Your task to perform on an android device: Open privacy settings Image 0: 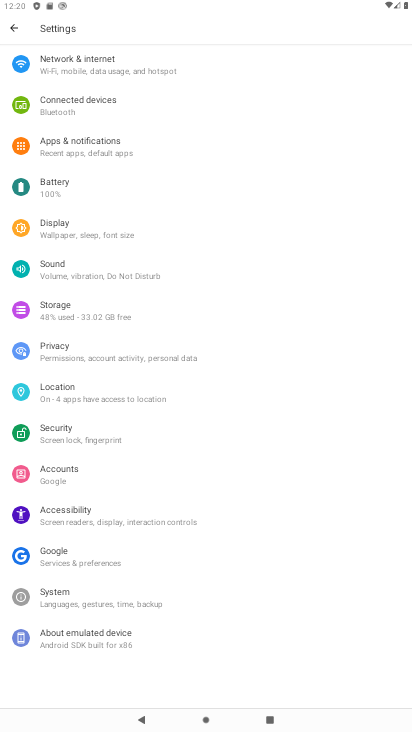
Step 0: press home button
Your task to perform on an android device: Open privacy settings Image 1: 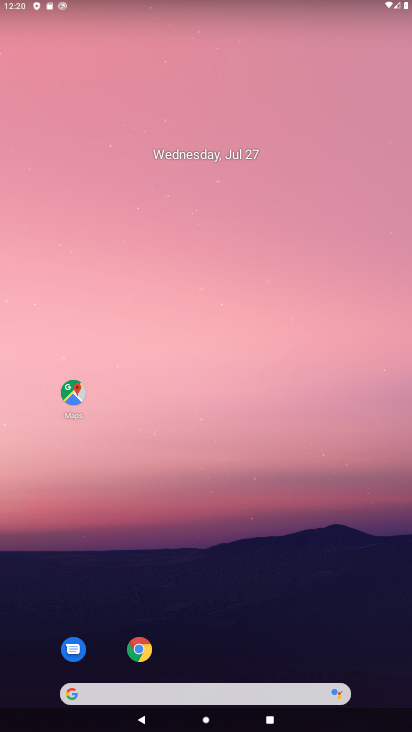
Step 1: drag from (204, 606) to (190, 191)
Your task to perform on an android device: Open privacy settings Image 2: 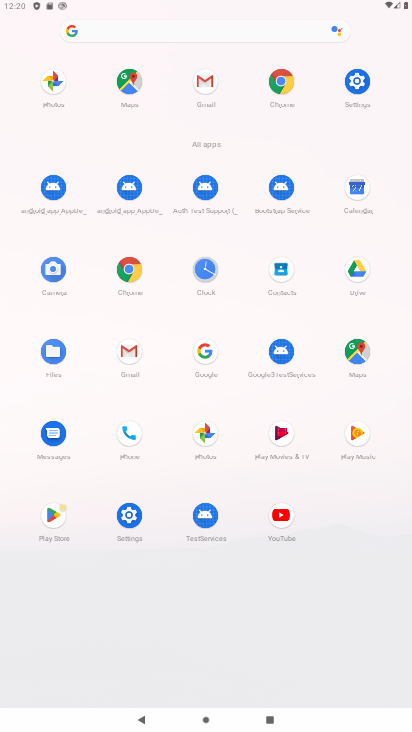
Step 2: click (356, 95)
Your task to perform on an android device: Open privacy settings Image 3: 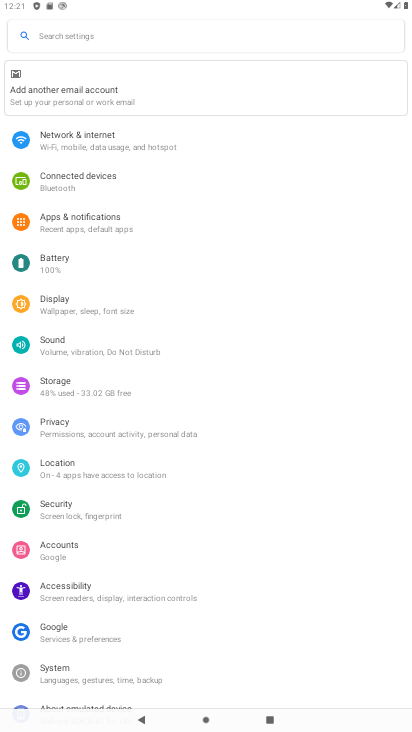
Step 3: drag from (106, 618) to (101, 392)
Your task to perform on an android device: Open privacy settings Image 4: 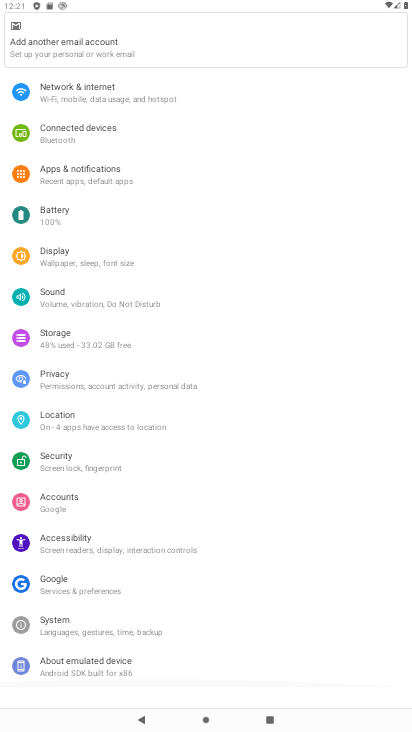
Step 4: click (90, 376)
Your task to perform on an android device: Open privacy settings Image 5: 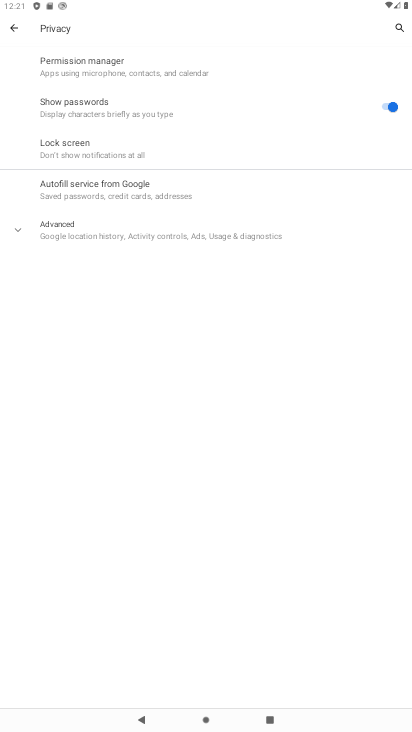
Step 5: task complete